Your task to perform on an android device: delete location history Image 0: 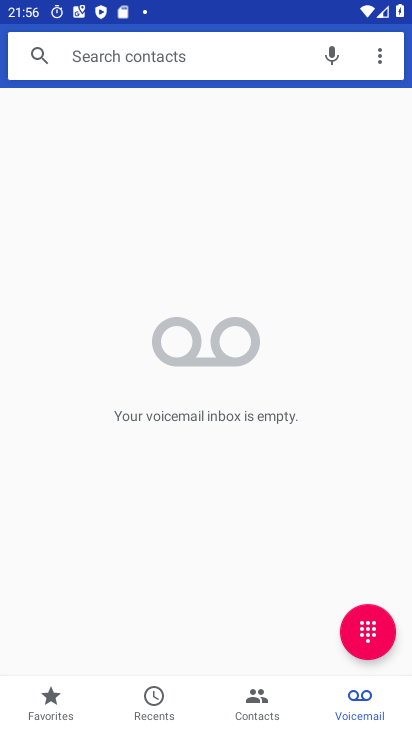
Step 0: press home button
Your task to perform on an android device: delete location history Image 1: 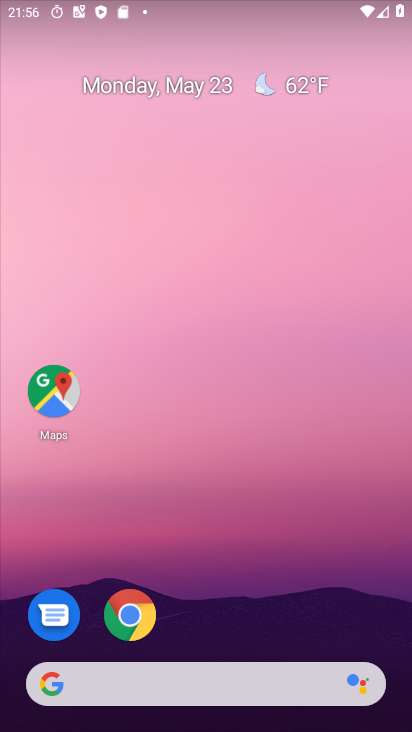
Step 1: drag from (237, 616) to (287, 67)
Your task to perform on an android device: delete location history Image 2: 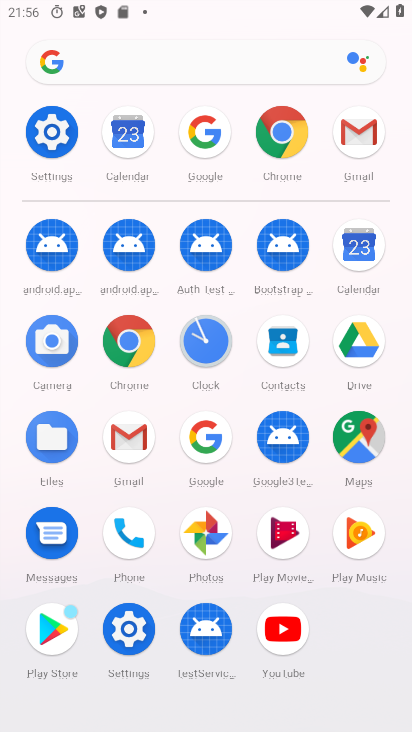
Step 2: click (136, 637)
Your task to perform on an android device: delete location history Image 3: 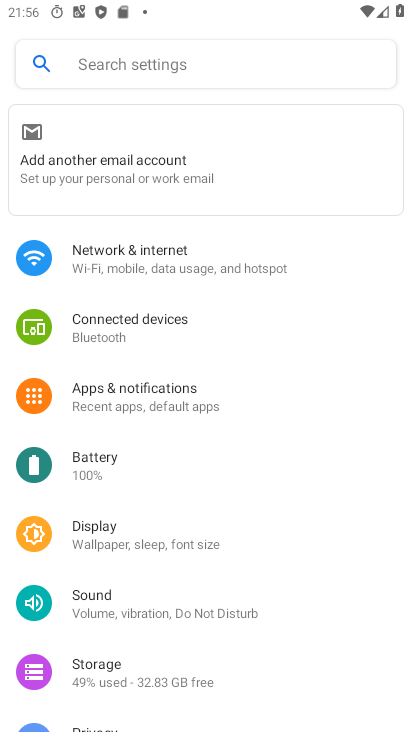
Step 3: drag from (288, 567) to (257, 130)
Your task to perform on an android device: delete location history Image 4: 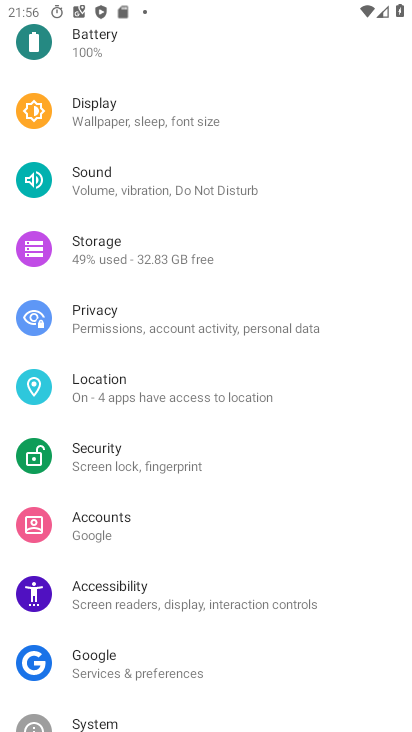
Step 4: drag from (122, 424) to (54, 327)
Your task to perform on an android device: delete location history Image 5: 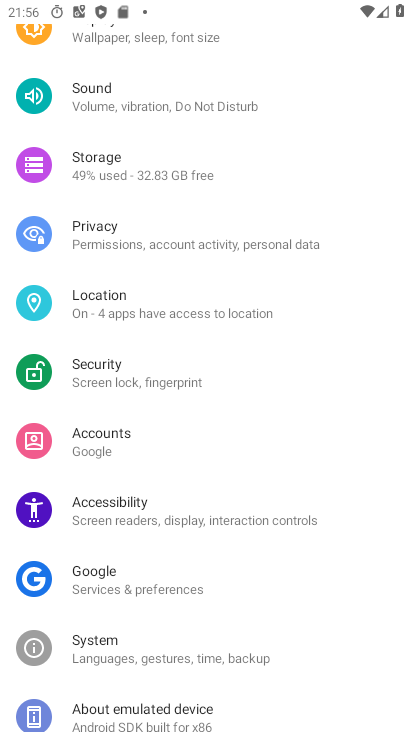
Step 5: click (139, 306)
Your task to perform on an android device: delete location history Image 6: 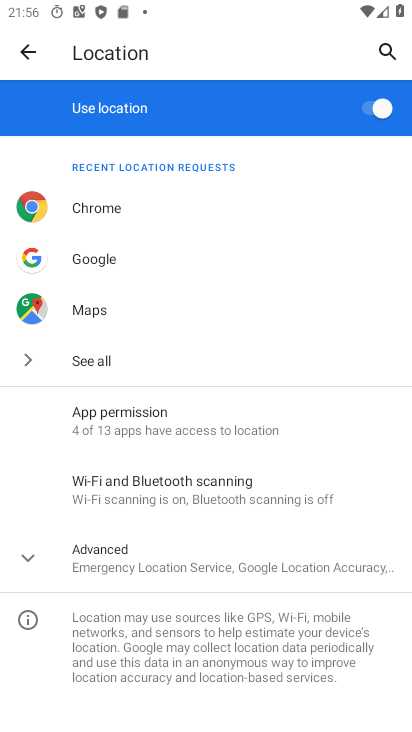
Step 6: click (158, 560)
Your task to perform on an android device: delete location history Image 7: 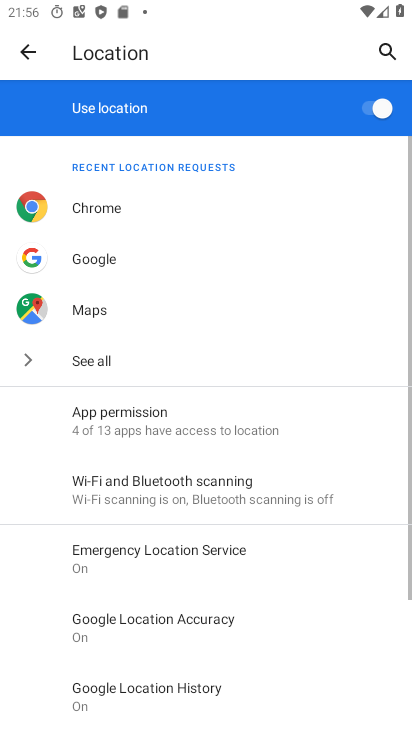
Step 7: drag from (247, 605) to (260, 277)
Your task to perform on an android device: delete location history Image 8: 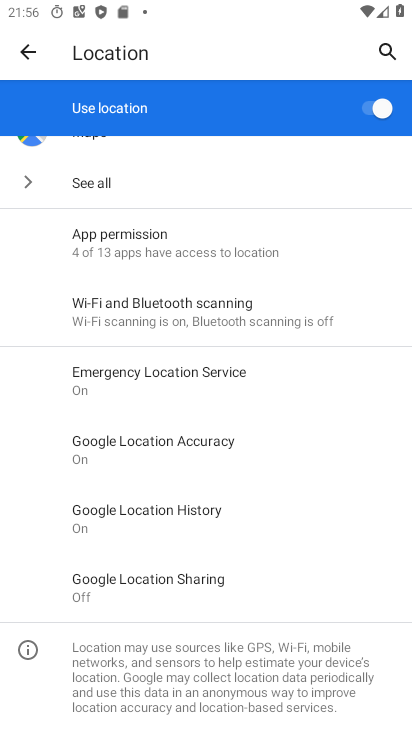
Step 8: click (116, 507)
Your task to perform on an android device: delete location history Image 9: 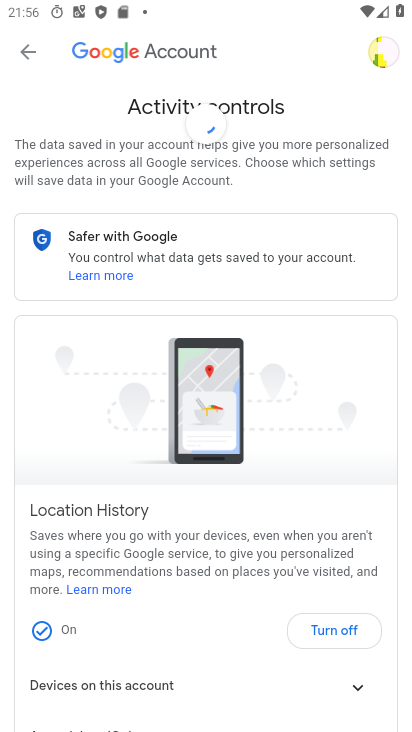
Step 9: drag from (227, 599) to (227, 190)
Your task to perform on an android device: delete location history Image 10: 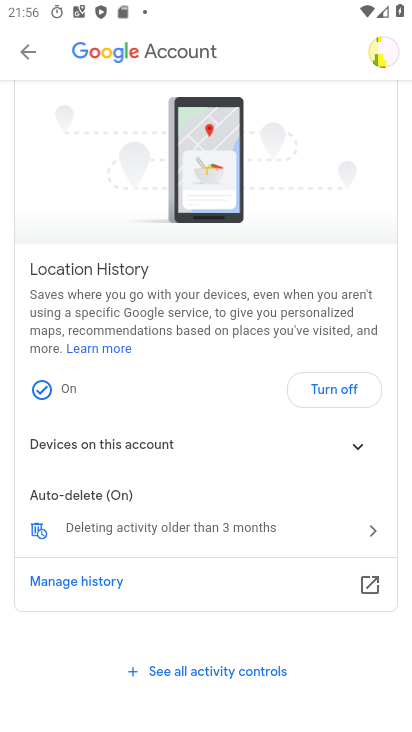
Step 10: click (36, 532)
Your task to perform on an android device: delete location history Image 11: 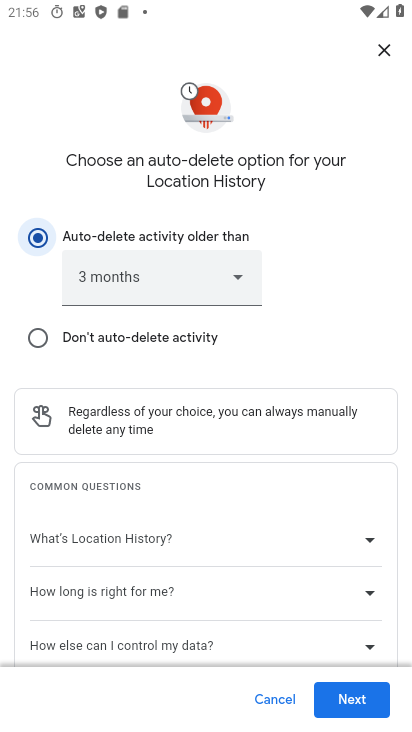
Step 11: click (359, 694)
Your task to perform on an android device: delete location history Image 12: 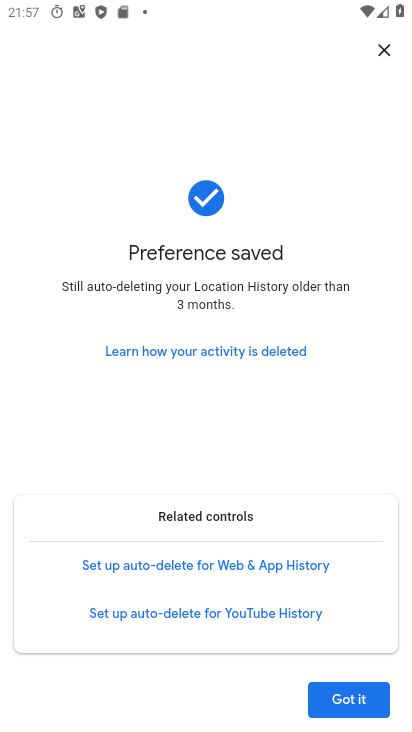
Step 12: click (359, 694)
Your task to perform on an android device: delete location history Image 13: 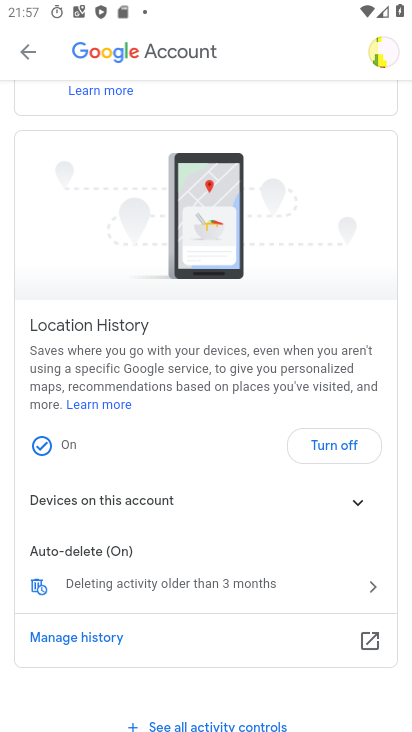
Step 13: task complete